Your task to perform on an android device: Go to location settings Image 0: 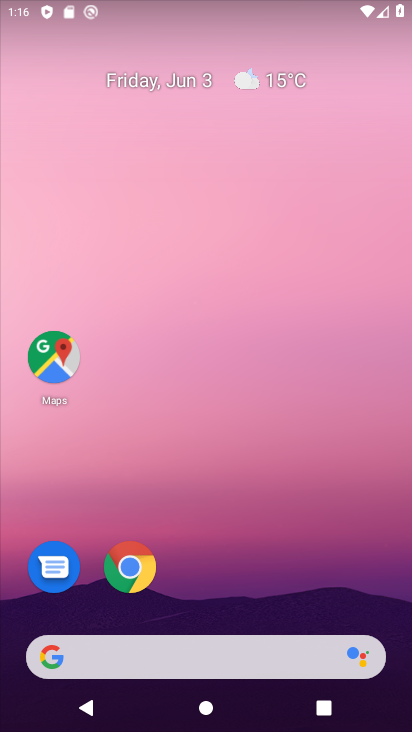
Step 0: drag from (266, 563) to (294, 104)
Your task to perform on an android device: Go to location settings Image 1: 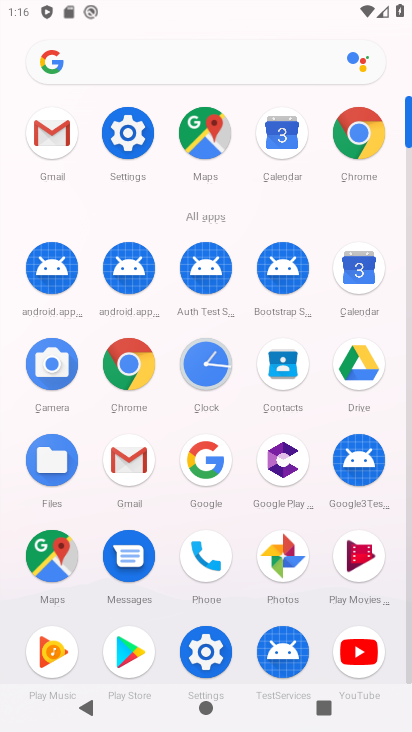
Step 1: click (198, 647)
Your task to perform on an android device: Go to location settings Image 2: 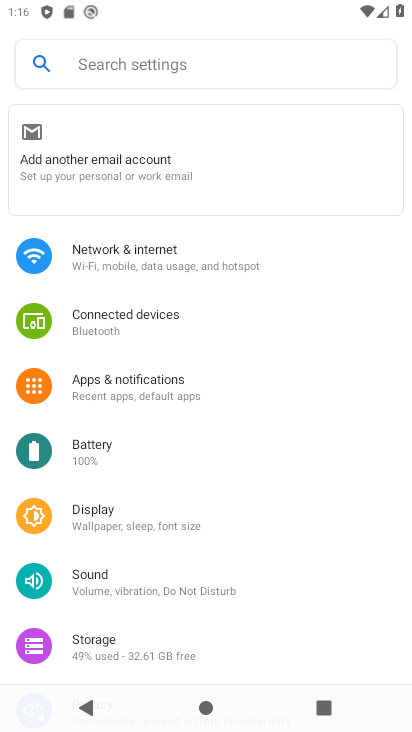
Step 2: drag from (190, 611) to (199, 290)
Your task to perform on an android device: Go to location settings Image 3: 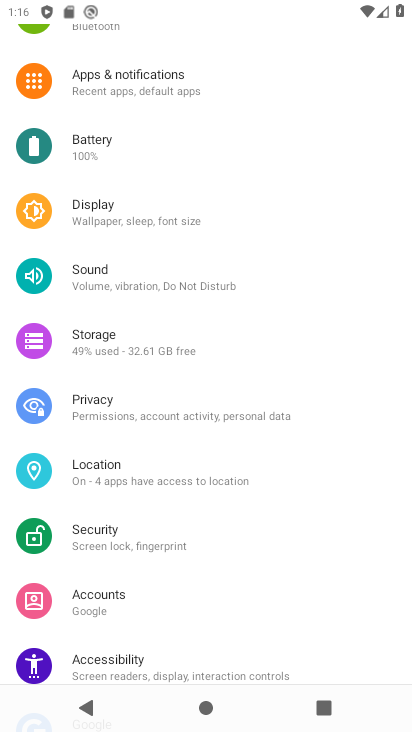
Step 3: click (116, 473)
Your task to perform on an android device: Go to location settings Image 4: 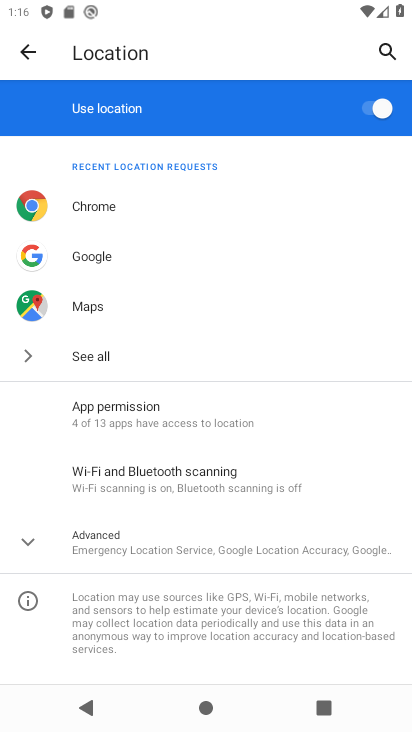
Step 4: task complete